Your task to perform on an android device: change the clock display to show seconds Image 0: 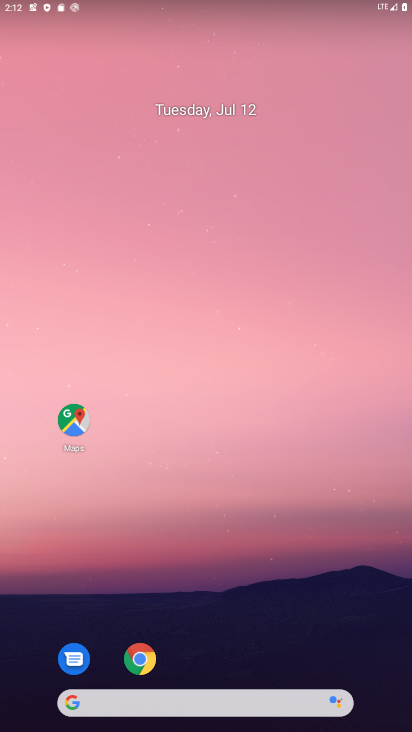
Step 0: drag from (256, 731) to (248, 144)
Your task to perform on an android device: change the clock display to show seconds Image 1: 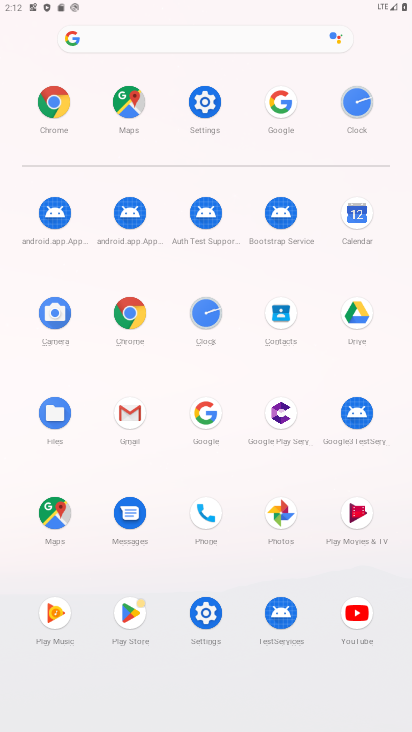
Step 1: click (209, 309)
Your task to perform on an android device: change the clock display to show seconds Image 2: 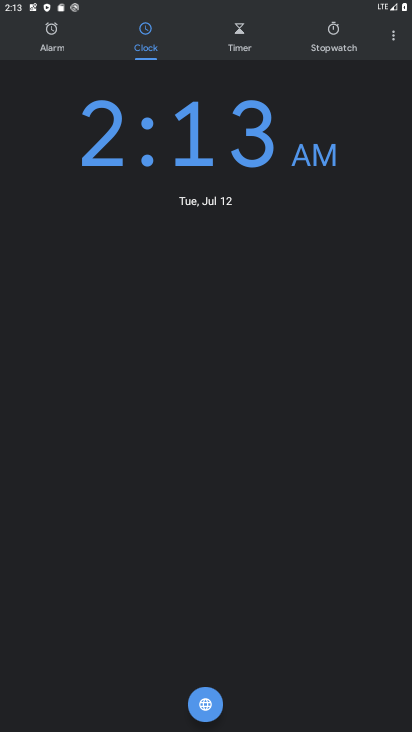
Step 2: click (395, 36)
Your task to perform on an android device: change the clock display to show seconds Image 3: 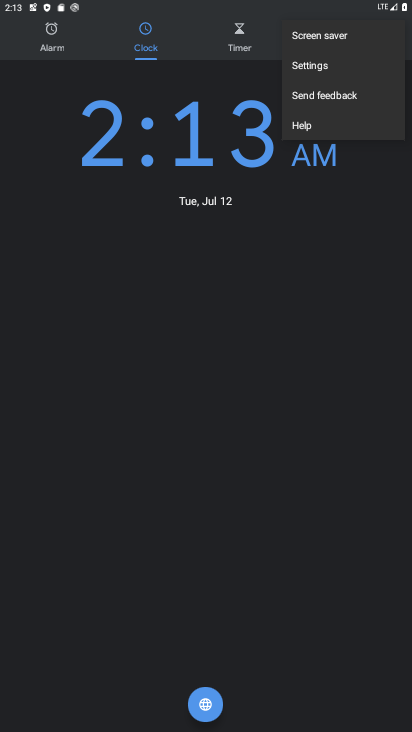
Step 3: click (317, 72)
Your task to perform on an android device: change the clock display to show seconds Image 4: 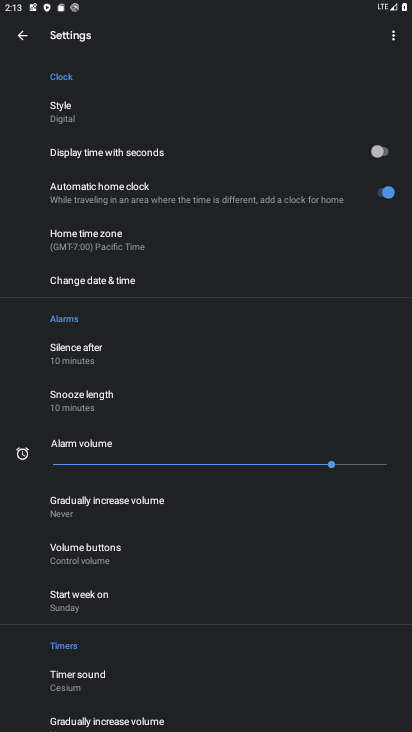
Step 4: click (373, 151)
Your task to perform on an android device: change the clock display to show seconds Image 5: 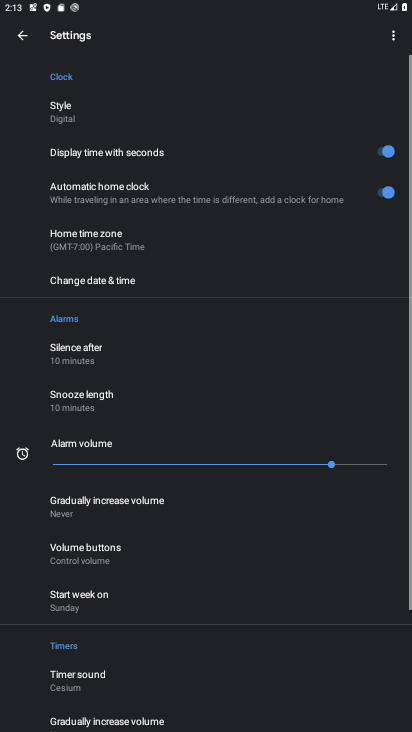
Step 5: task complete